Your task to perform on an android device: Open Chrome and go to settings Image 0: 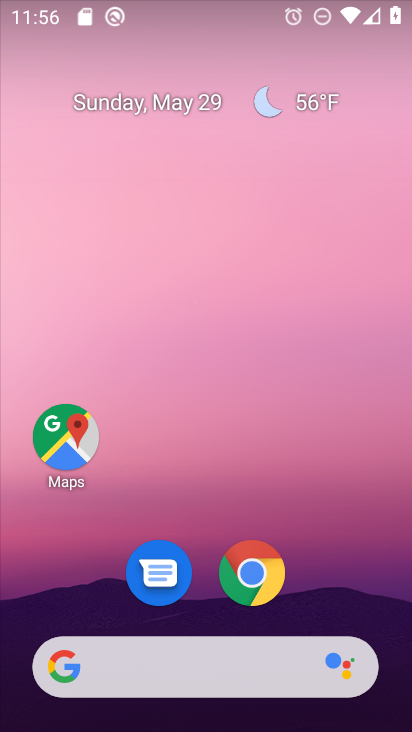
Step 0: drag from (294, 612) to (366, 62)
Your task to perform on an android device: Open Chrome and go to settings Image 1: 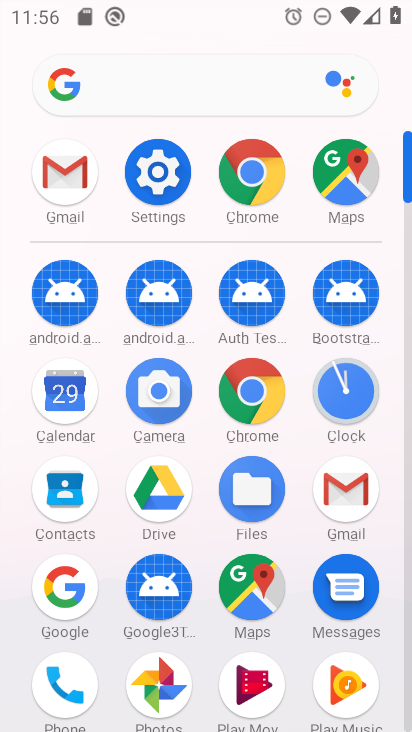
Step 1: click (246, 402)
Your task to perform on an android device: Open Chrome and go to settings Image 2: 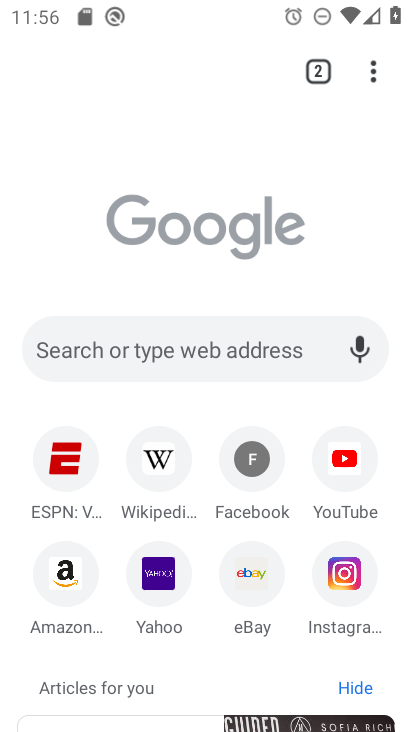
Step 2: task complete